Your task to perform on an android device: toggle sleep mode Image 0: 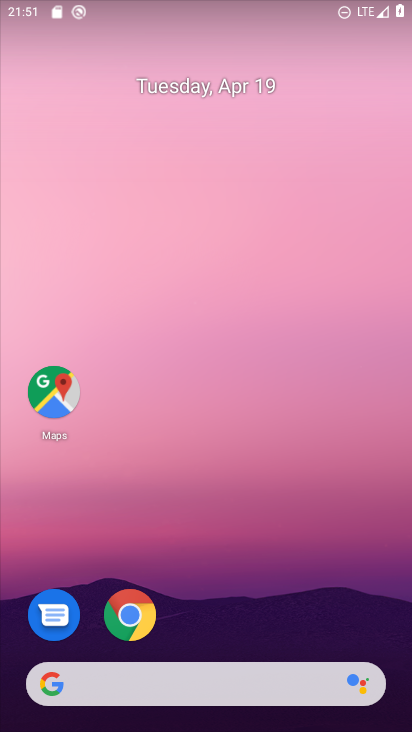
Step 0: drag from (269, 9) to (0, 502)
Your task to perform on an android device: toggle sleep mode Image 1: 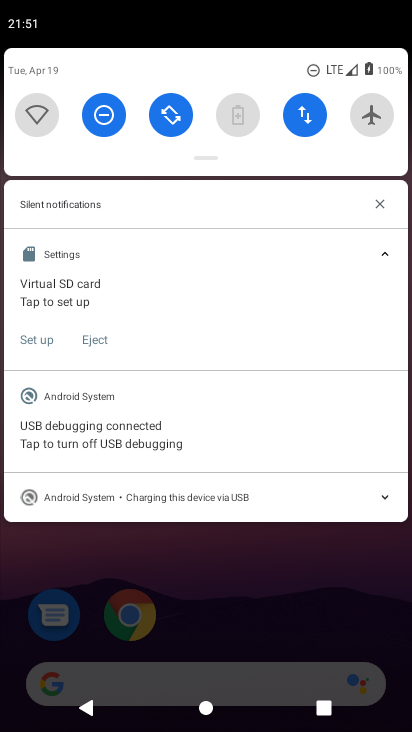
Step 1: drag from (232, 71) to (290, 482)
Your task to perform on an android device: toggle sleep mode Image 2: 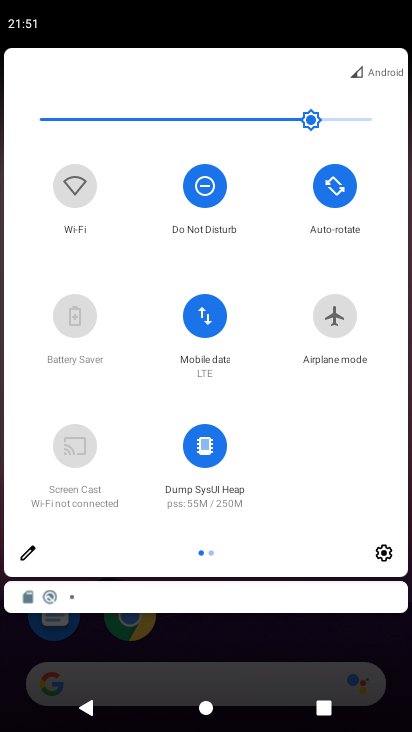
Step 2: click (385, 571)
Your task to perform on an android device: toggle sleep mode Image 3: 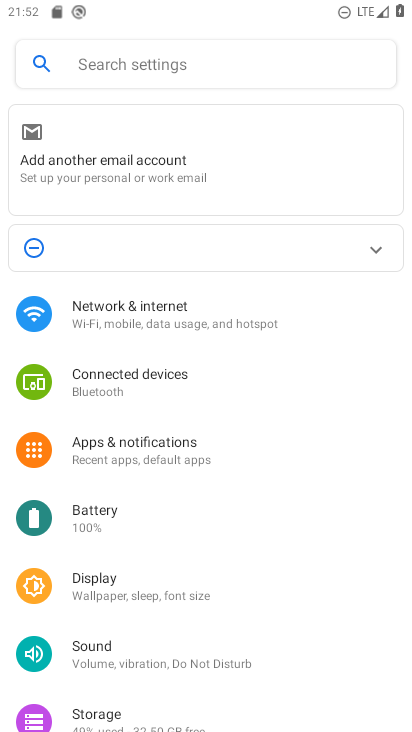
Step 3: task complete